Your task to perform on an android device: check google app version Image 0: 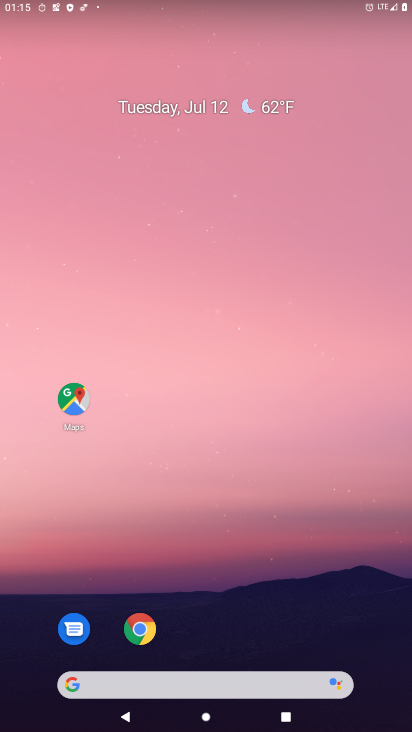
Step 0: drag from (237, 647) to (227, 124)
Your task to perform on an android device: check google app version Image 1: 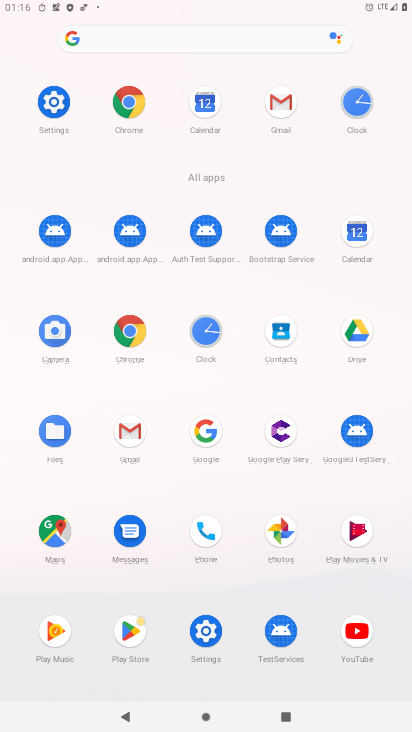
Step 1: click (209, 431)
Your task to perform on an android device: check google app version Image 2: 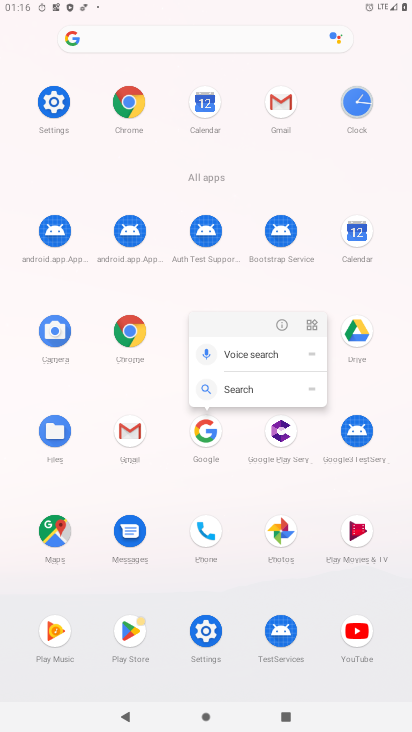
Step 2: click (274, 323)
Your task to perform on an android device: check google app version Image 3: 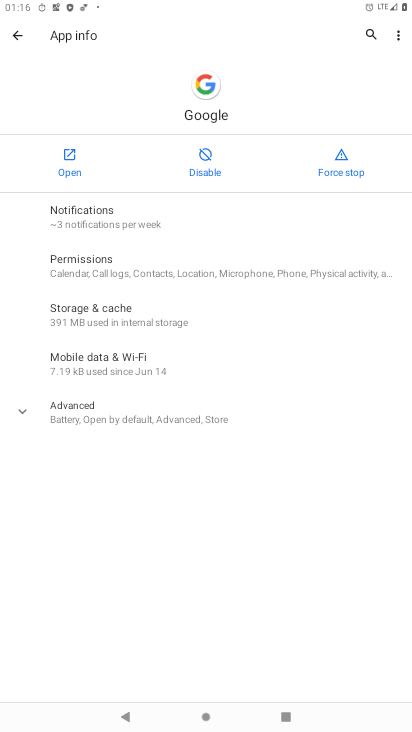
Step 3: click (120, 421)
Your task to perform on an android device: check google app version Image 4: 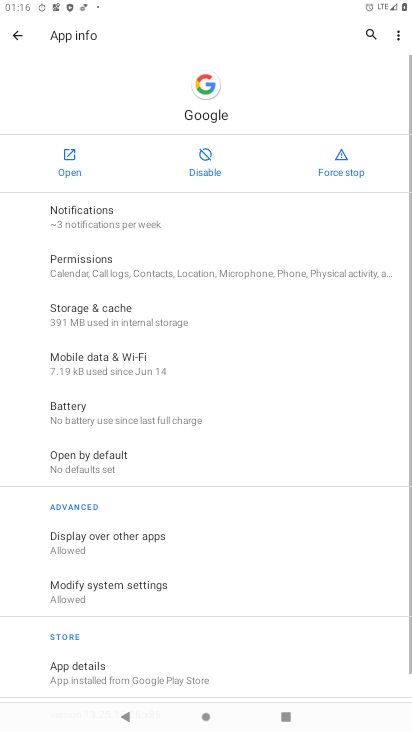
Step 4: task complete